Your task to perform on an android device: turn on location history Image 0: 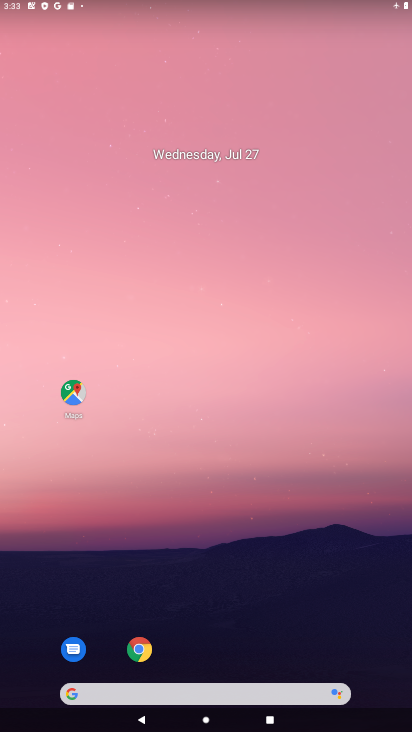
Step 0: drag from (202, 591) to (223, 148)
Your task to perform on an android device: turn on location history Image 1: 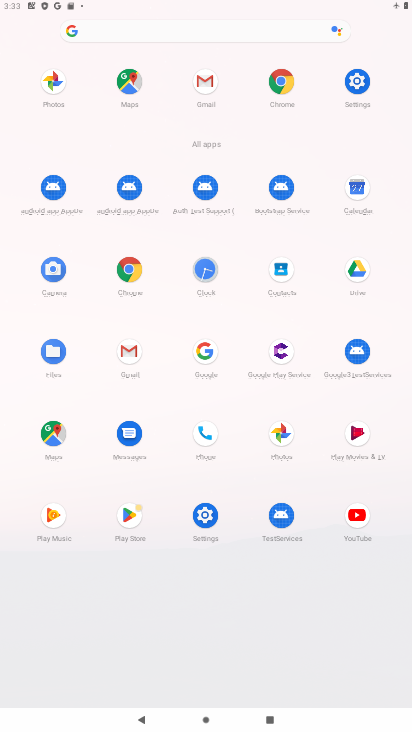
Step 1: click (197, 516)
Your task to perform on an android device: turn on location history Image 2: 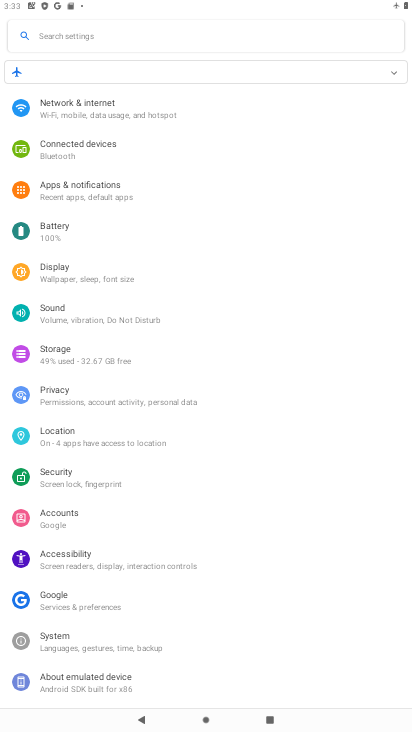
Step 2: click (72, 440)
Your task to perform on an android device: turn on location history Image 3: 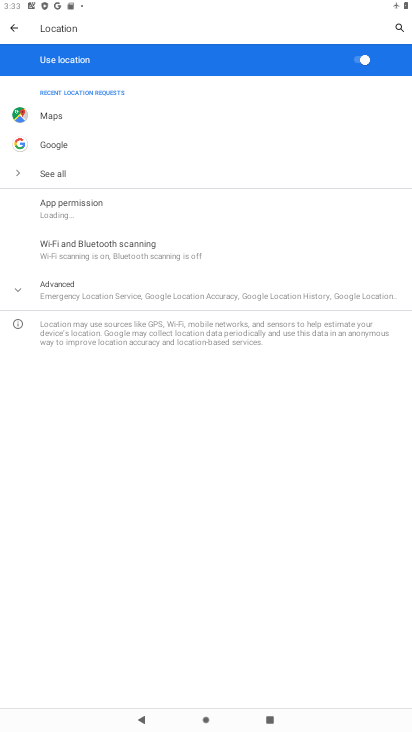
Step 3: task complete